Your task to perform on an android device: Open CNN.com Image 0: 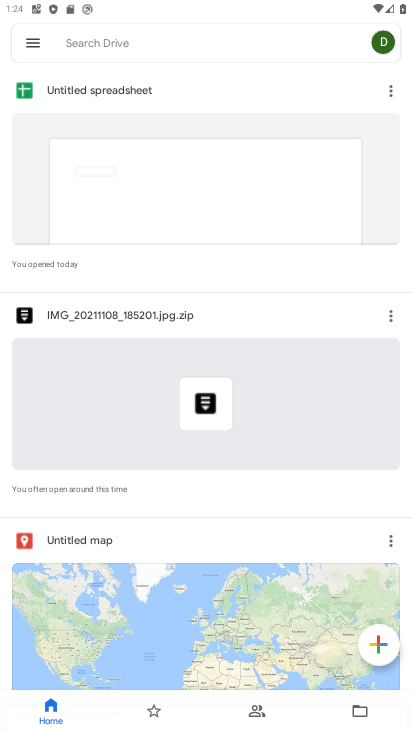
Step 0: press back button
Your task to perform on an android device: Open CNN.com Image 1: 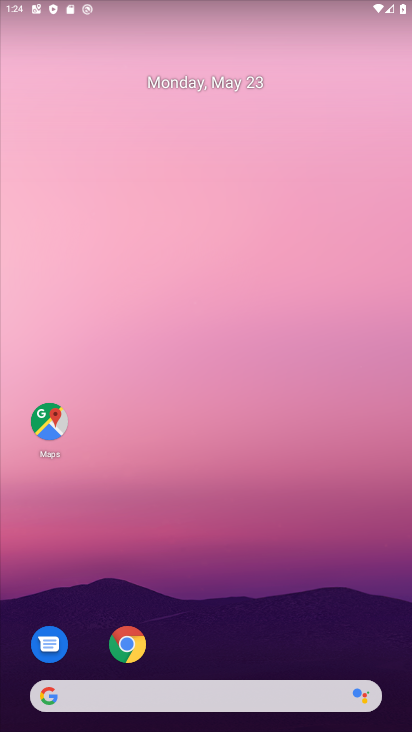
Step 1: drag from (230, 567) to (251, 12)
Your task to perform on an android device: Open CNN.com Image 2: 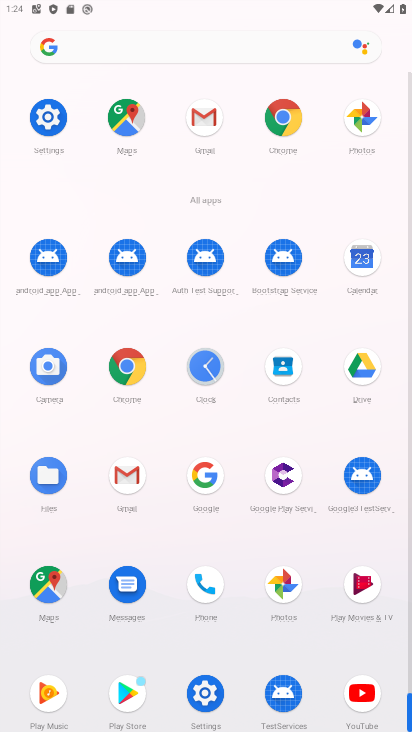
Step 2: click (128, 363)
Your task to perform on an android device: Open CNN.com Image 3: 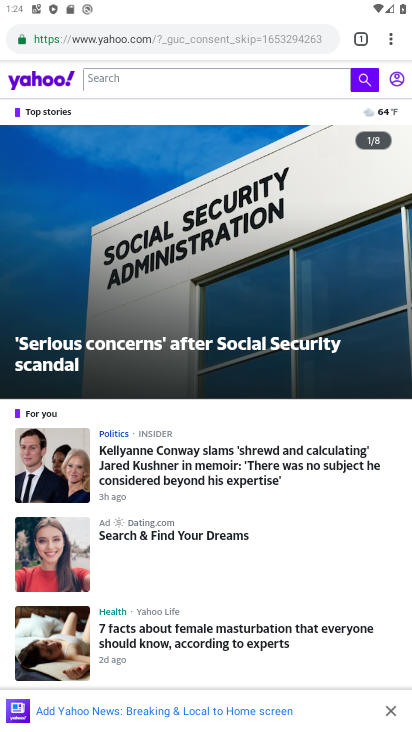
Step 3: click (197, 35)
Your task to perform on an android device: Open CNN.com Image 4: 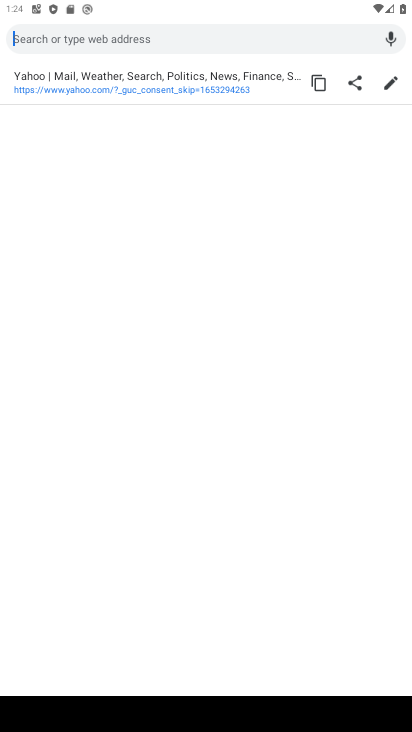
Step 4: type " CNN.com"
Your task to perform on an android device: Open CNN.com Image 5: 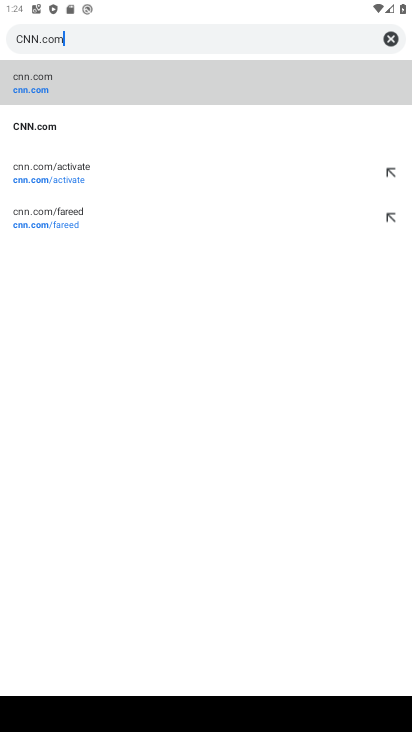
Step 5: type ""
Your task to perform on an android device: Open CNN.com Image 6: 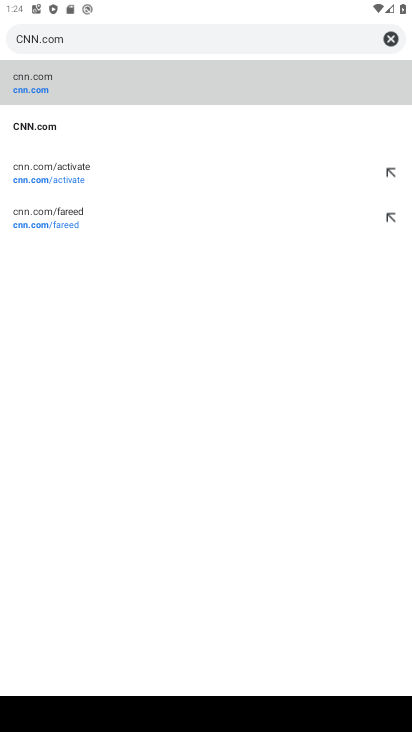
Step 6: click (99, 88)
Your task to perform on an android device: Open CNN.com Image 7: 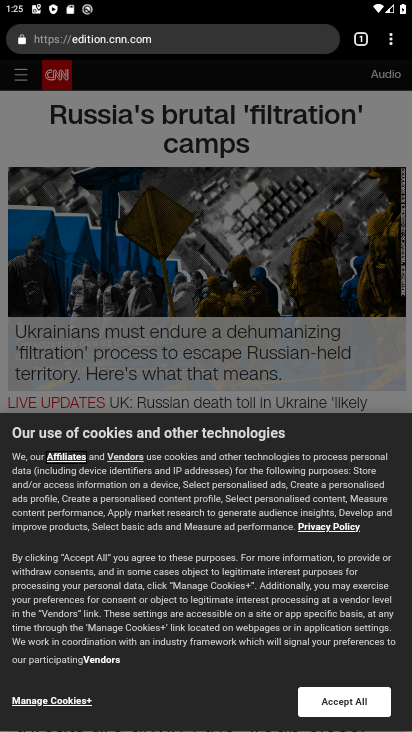
Step 7: task complete